Your task to perform on an android device: set default search engine in the chrome app Image 0: 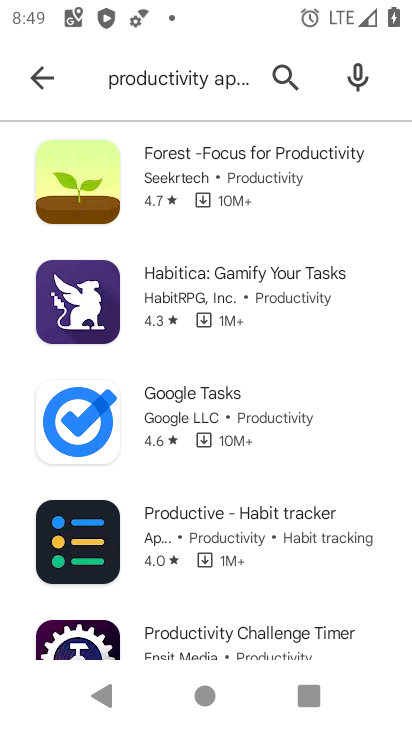
Step 0: press home button
Your task to perform on an android device: set default search engine in the chrome app Image 1: 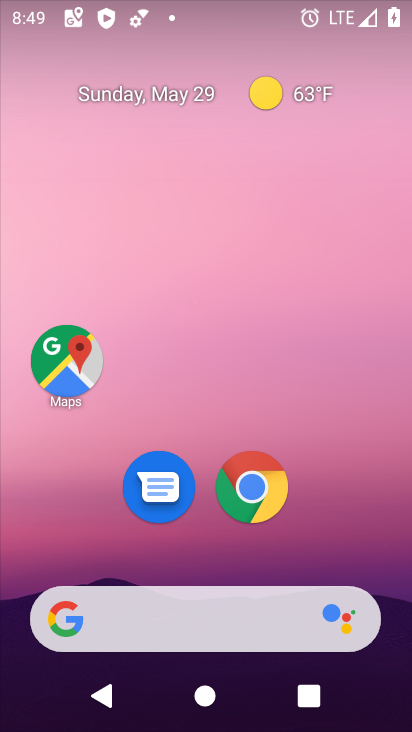
Step 1: click (262, 509)
Your task to perform on an android device: set default search engine in the chrome app Image 2: 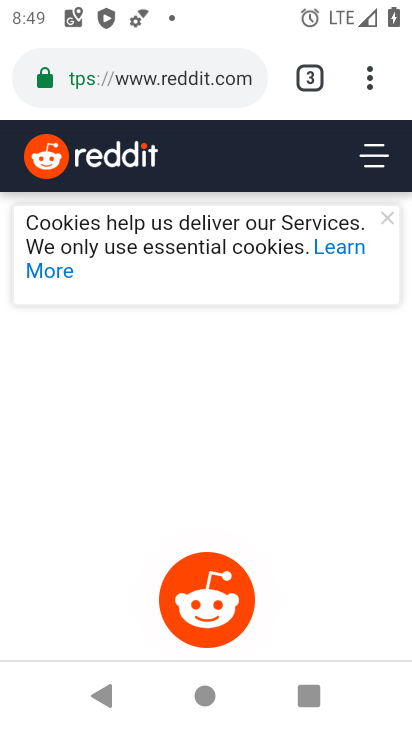
Step 2: click (365, 62)
Your task to perform on an android device: set default search engine in the chrome app Image 3: 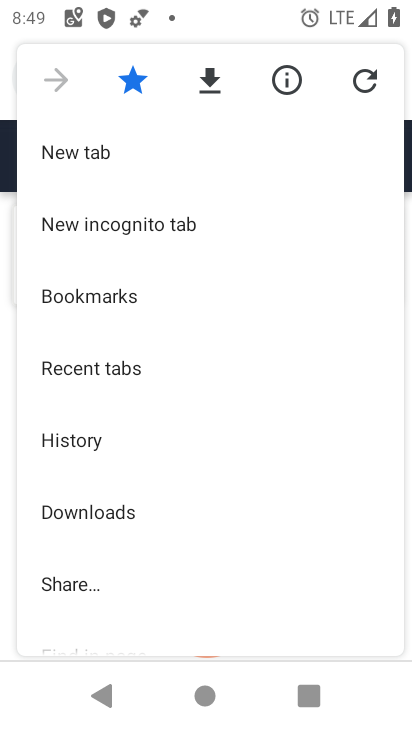
Step 3: drag from (162, 534) to (252, 182)
Your task to perform on an android device: set default search engine in the chrome app Image 4: 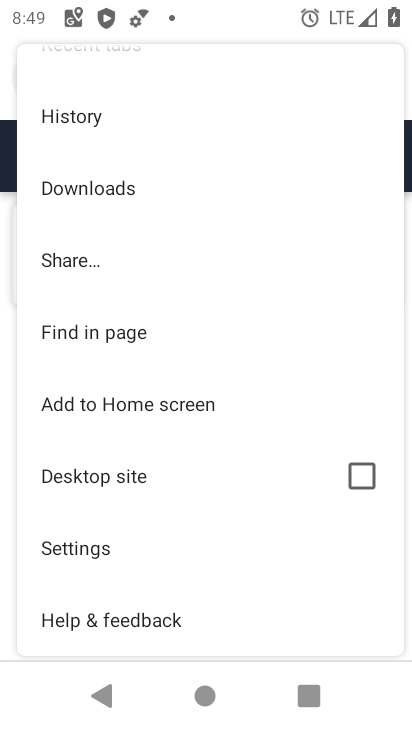
Step 4: click (103, 540)
Your task to perform on an android device: set default search engine in the chrome app Image 5: 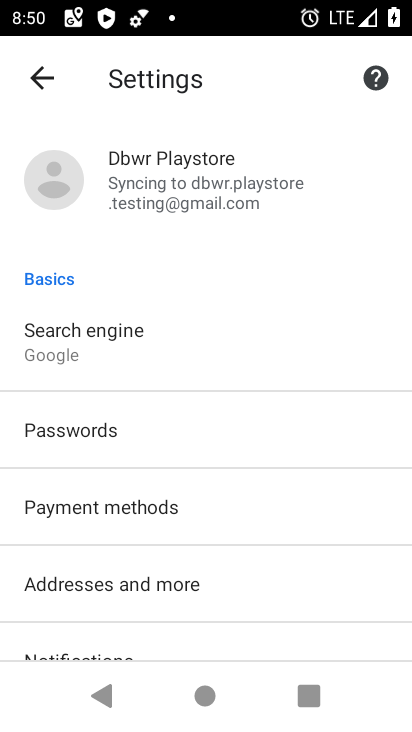
Step 5: click (128, 341)
Your task to perform on an android device: set default search engine in the chrome app Image 6: 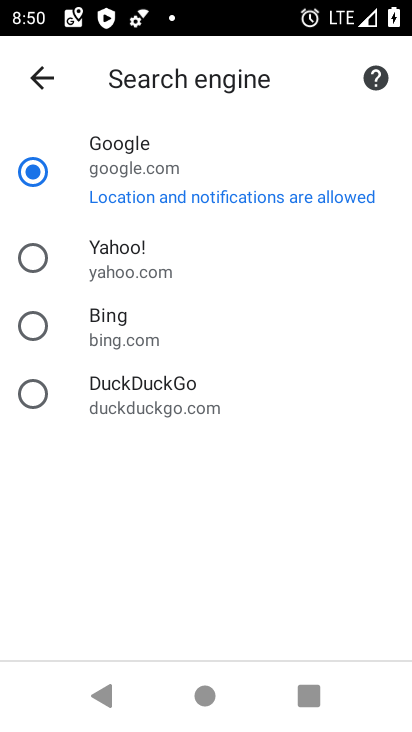
Step 6: task complete